Your task to perform on an android device: turn on javascript in the chrome app Image 0: 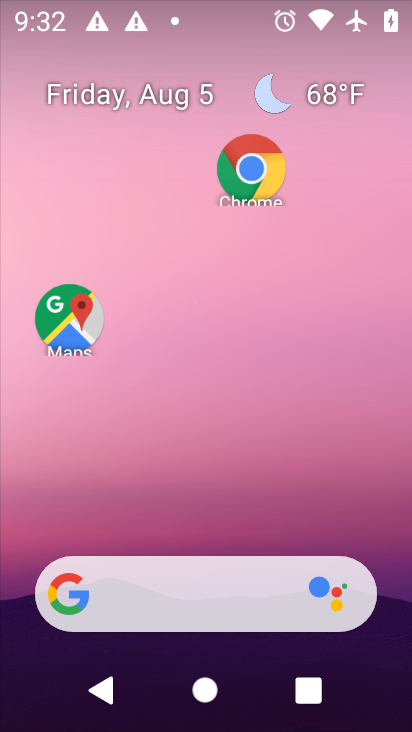
Step 0: click (248, 189)
Your task to perform on an android device: turn on javascript in the chrome app Image 1: 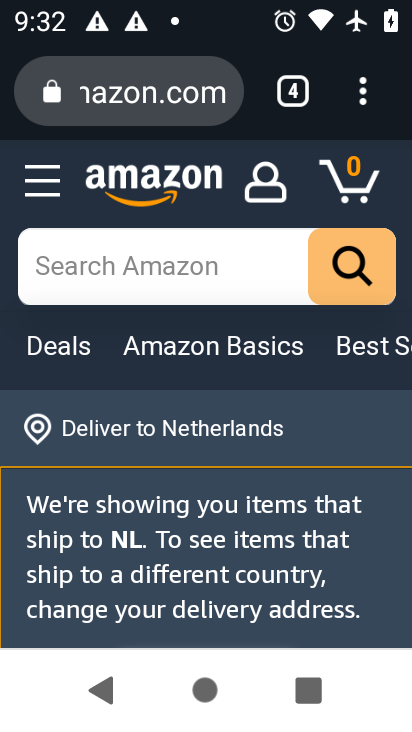
Step 1: click (353, 99)
Your task to perform on an android device: turn on javascript in the chrome app Image 2: 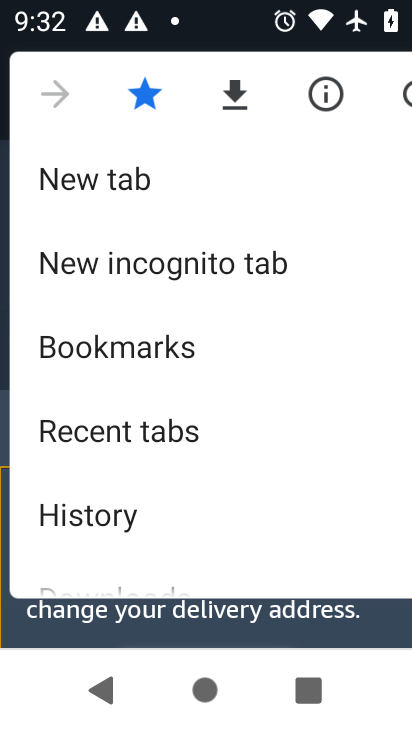
Step 2: drag from (188, 525) to (209, 258)
Your task to perform on an android device: turn on javascript in the chrome app Image 3: 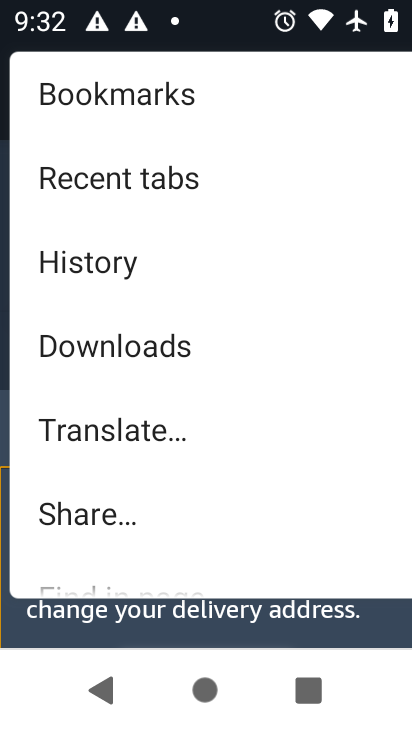
Step 3: drag from (131, 505) to (161, 238)
Your task to perform on an android device: turn on javascript in the chrome app Image 4: 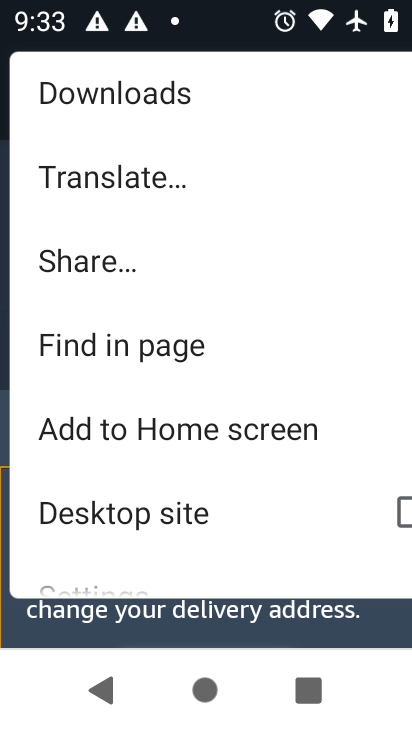
Step 4: drag from (161, 517) to (193, 271)
Your task to perform on an android device: turn on javascript in the chrome app Image 5: 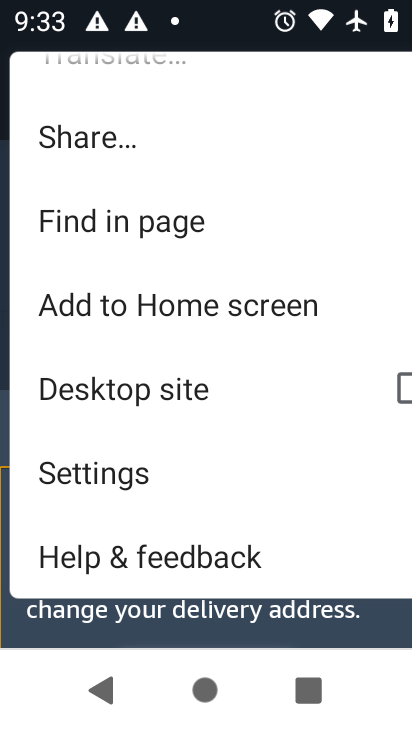
Step 5: click (131, 472)
Your task to perform on an android device: turn on javascript in the chrome app Image 6: 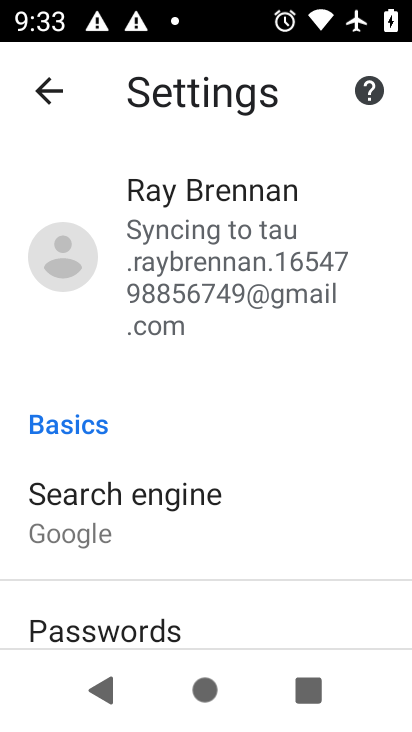
Step 6: drag from (180, 535) to (176, 249)
Your task to perform on an android device: turn on javascript in the chrome app Image 7: 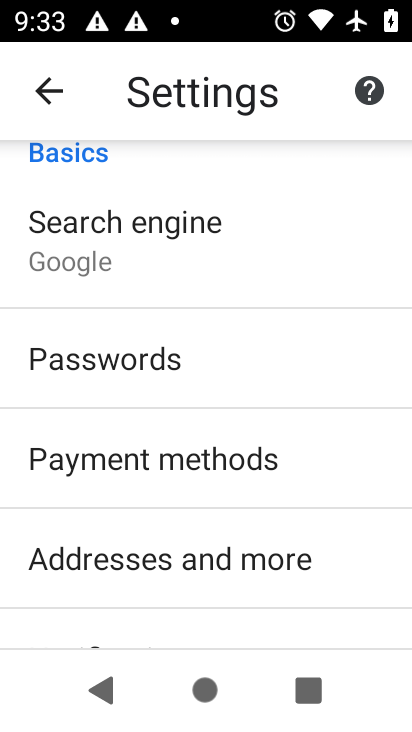
Step 7: drag from (198, 501) to (213, 251)
Your task to perform on an android device: turn on javascript in the chrome app Image 8: 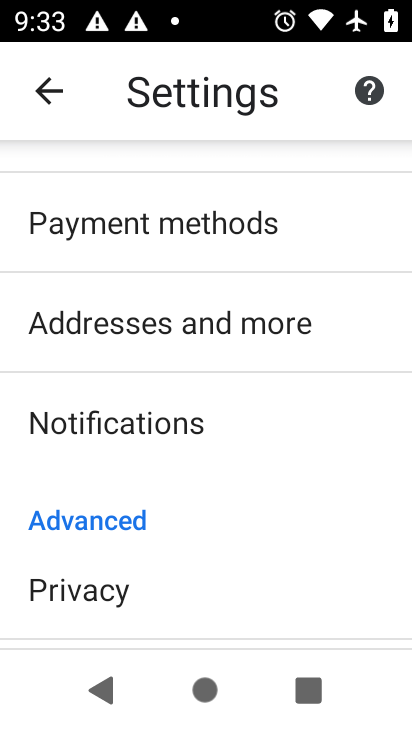
Step 8: drag from (190, 537) to (233, 265)
Your task to perform on an android device: turn on javascript in the chrome app Image 9: 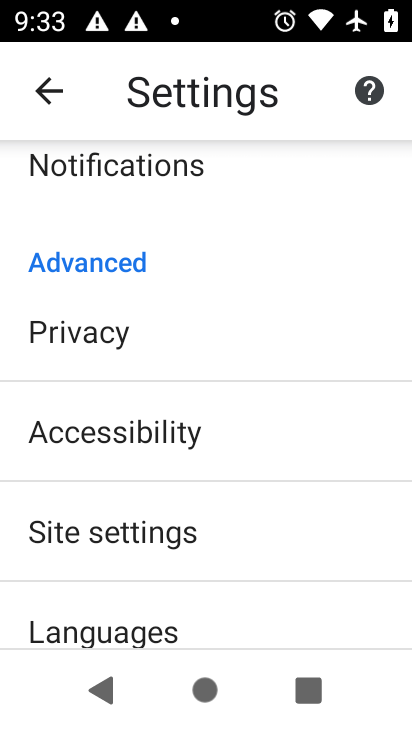
Step 9: click (146, 537)
Your task to perform on an android device: turn on javascript in the chrome app Image 10: 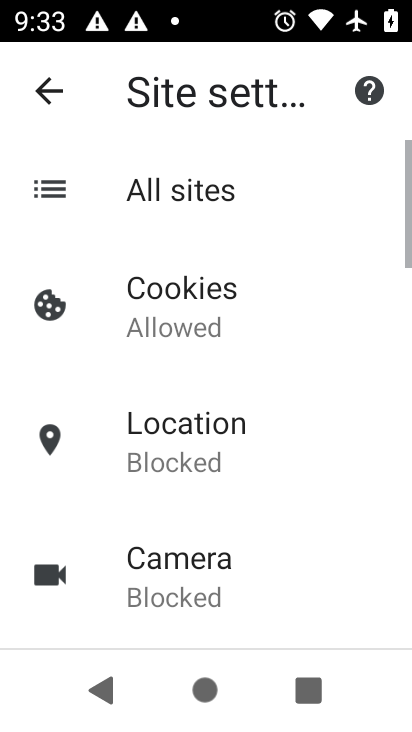
Step 10: drag from (219, 558) to (216, 246)
Your task to perform on an android device: turn on javascript in the chrome app Image 11: 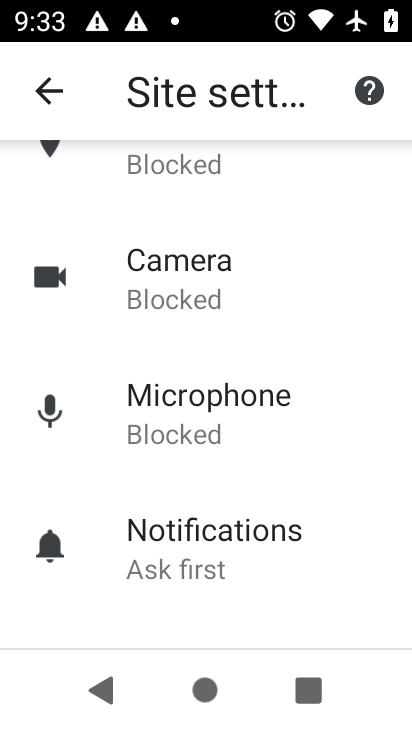
Step 11: drag from (210, 550) to (209, 255)
Your task to perform on an android device: turn on javascript in the chrome app Image 12: 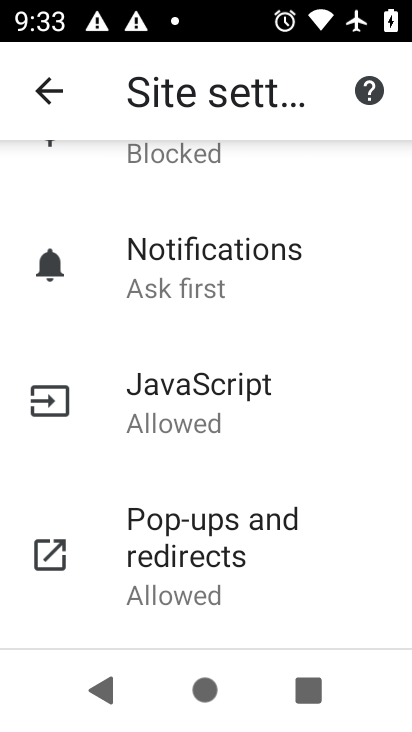
Step 12: click (209, 400)
Your task to perform on an android device: turn on javascript in the chrome app Image 13: 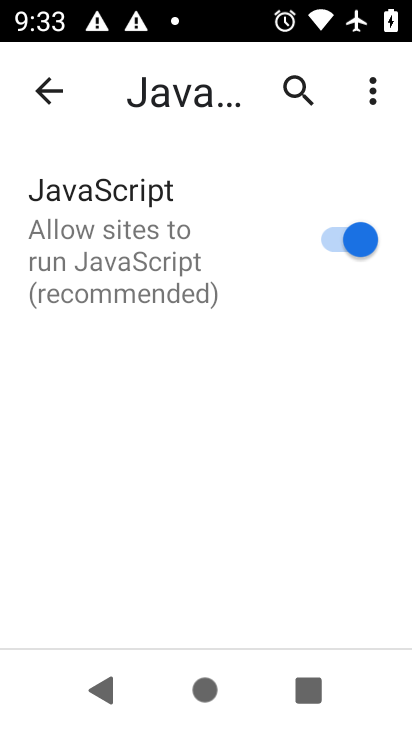
Step 13: task complete